Your task to perform on an android device: Search for vegetarian restaurants on Maps Image 0: 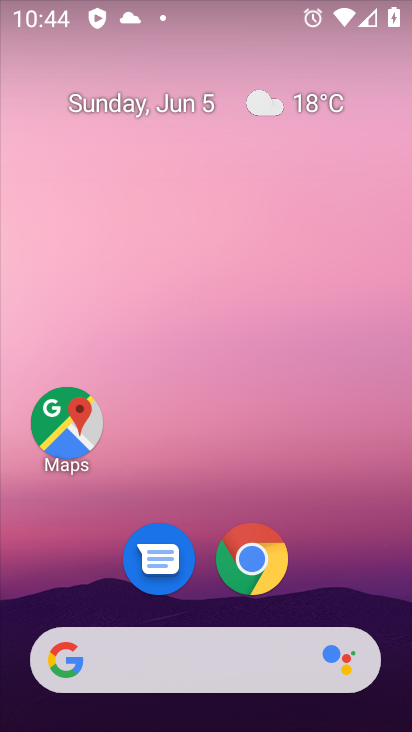
Step 0: click (55, 415)
Your task to perform on an android device: Search for vegetarian restaurants on Maps Image 1: 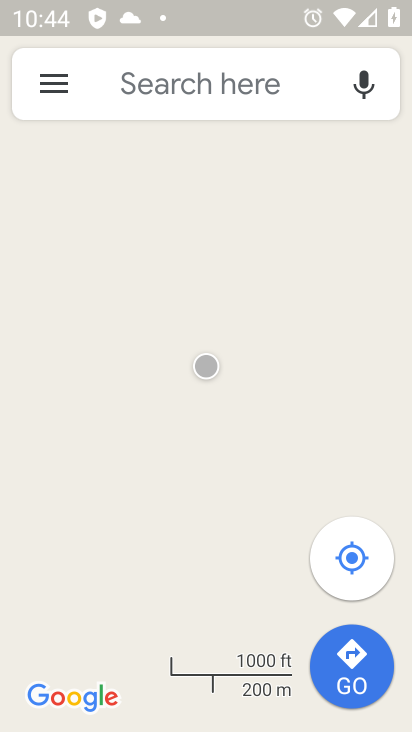
Step 1: click (192, 77)
Your task to perform on an android device: Search for vegetarian restaurants on Maps Image 2: 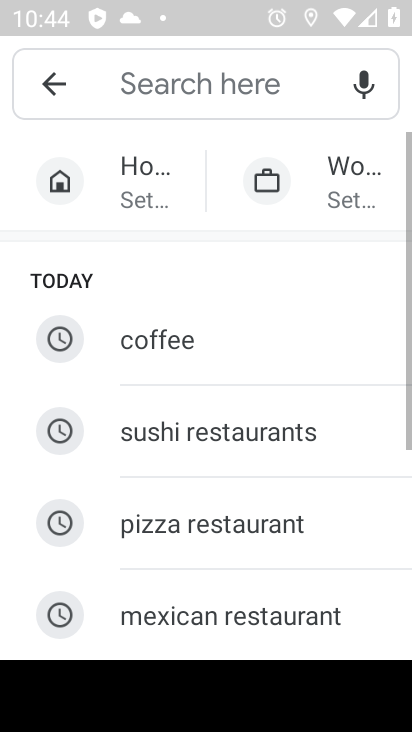
Step 2: type " vegetarian restaurants"
Your task to perform on an android device: Search for vegetarian restaurants on Maps Image 3: 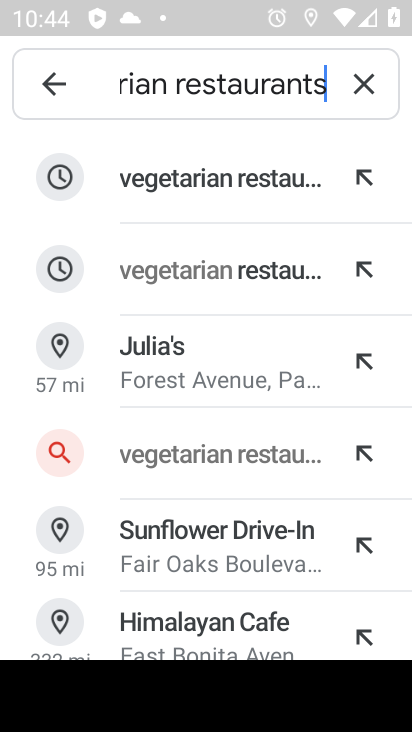
Step 3: click (279, 193)
Your task to perform on an android device: Search for vegetarian restaurants on Maps Image 4: 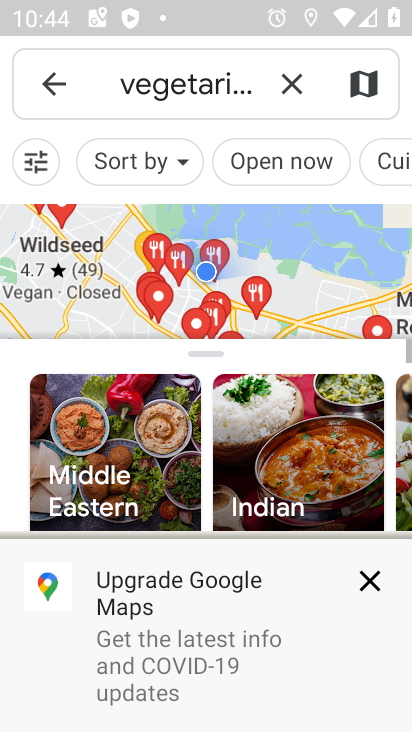
Step 4: task complete